Your task to perform on an android device: set the stopwatch Image 0: 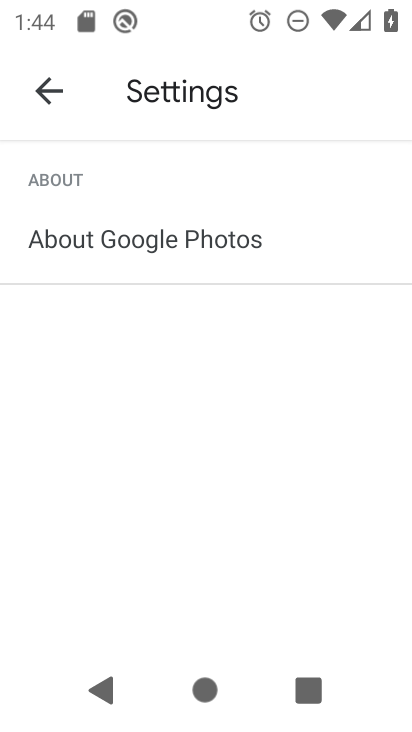
Step 0: press home button
Your task to perform on an android device: set the stopwatch Image 1: 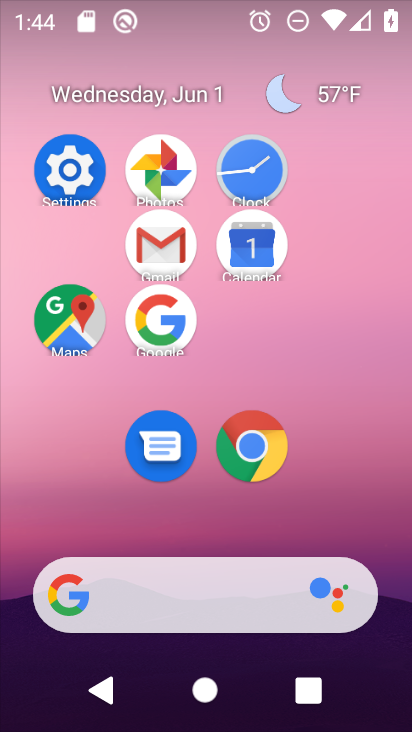
Step 1: click (263, 181)
Your task to perform on an android device: set the stopwatch Image 2: 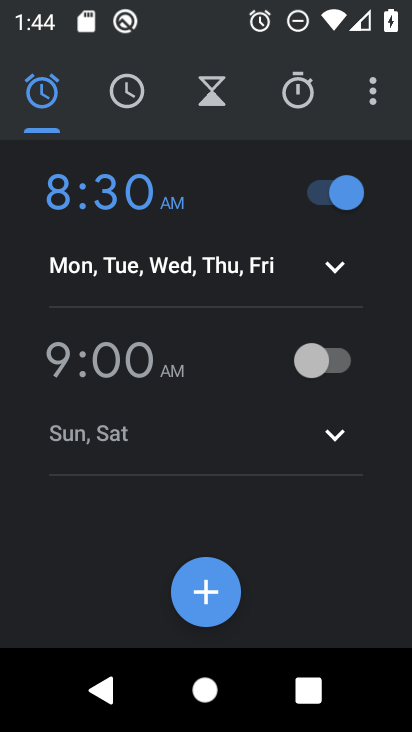
Step 2: click (292, 97)
Your task to perform on an android device: set the stopwatch Image 3: 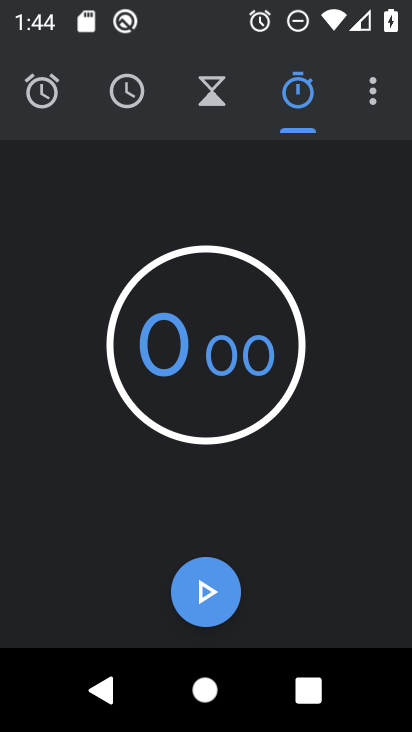
Step 3: click (190, 585)
Your task to perform on an android device: set the stopwatch Image 4: 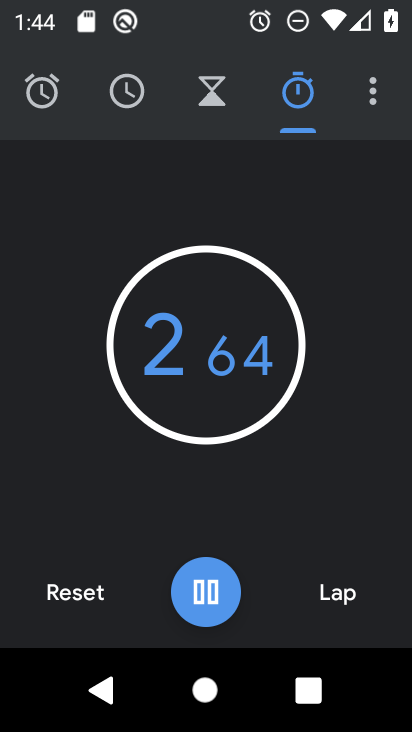
Step 4: task complete